Your task to perform on an android device: find snoozed emails in the gmail app Image 0: 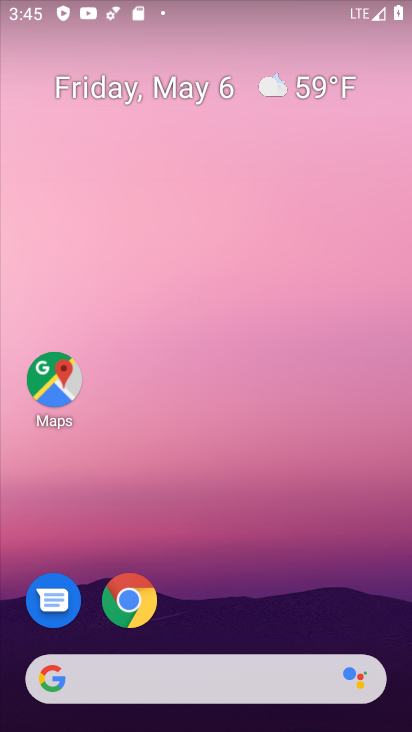
Step 0: drag from (212, 633) to (306, 6)
Your task to perform on an android device: find snoozed emails in the gmail app Image 1: 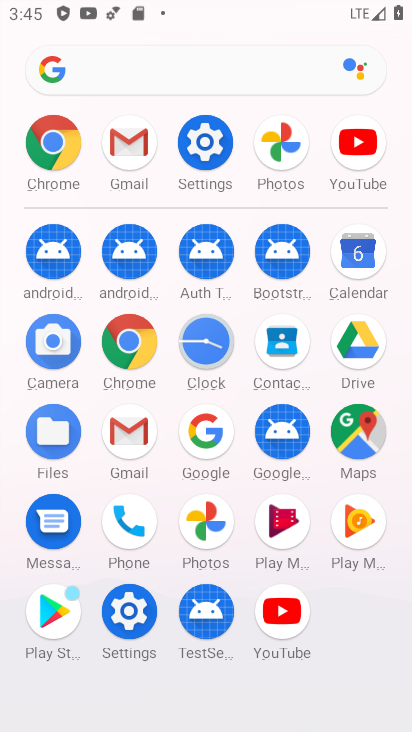
Step 1: click (131, 437)
Your task to perform on an android device: find snoozed emails in the gmail app Image 2: 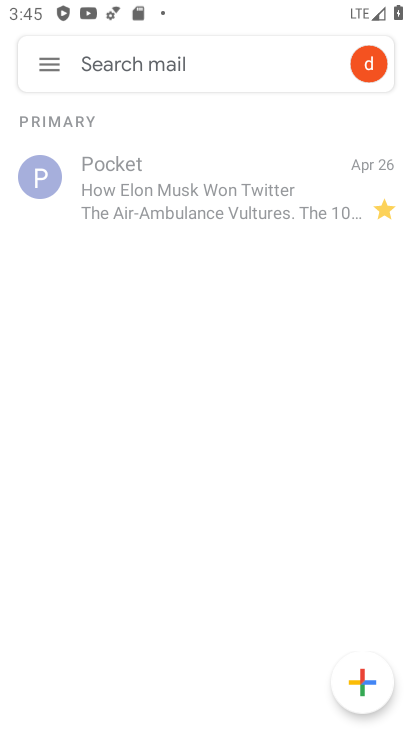
Step 2: click (49, 67)
Your task to perform on an android device: find snoozed emails in the gmail app Image 3: 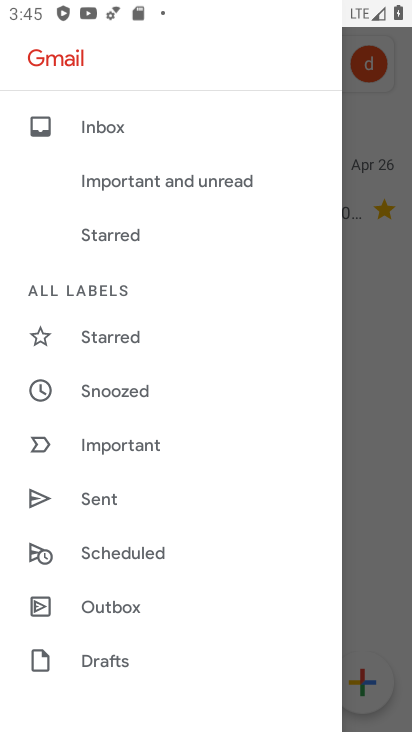
Step 3: click (126, 384)
Your task to perform on an android device: find snoozed emails in the gmail app Image 4: 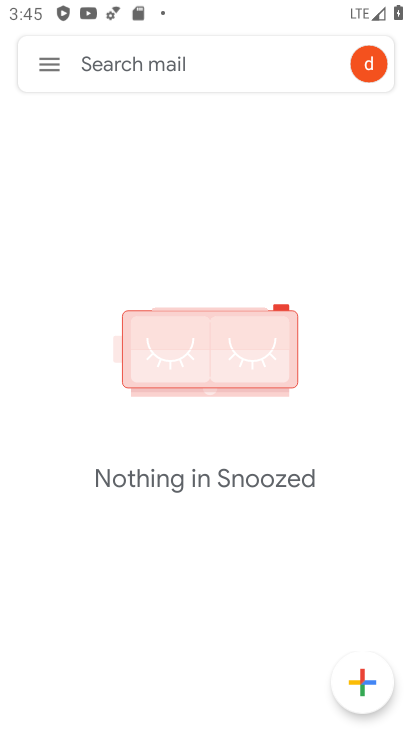
Step 4: task complete